Your task to perform on an android device: turn on wifi Image 0: 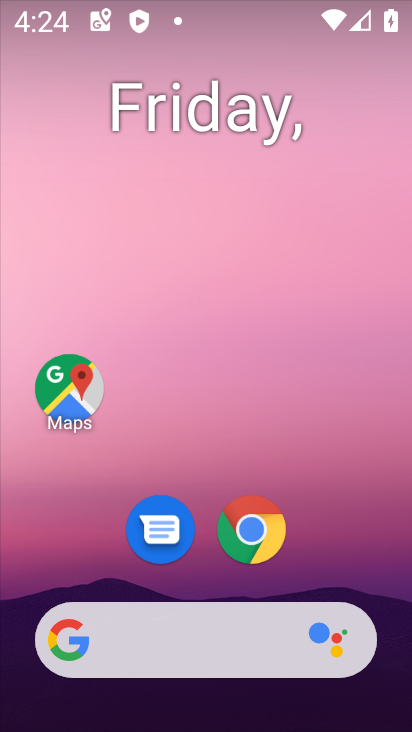
Step 0: drag from (320, 573) to (264, 28)
Your task to perform on an android device: turn on wifi Image 1: 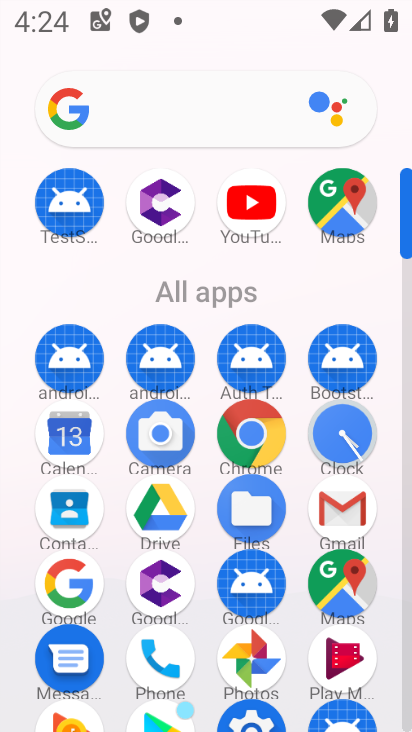
Step 1: click (322, 395)
Your task to perform on an android device: turn on wifi Image 2: 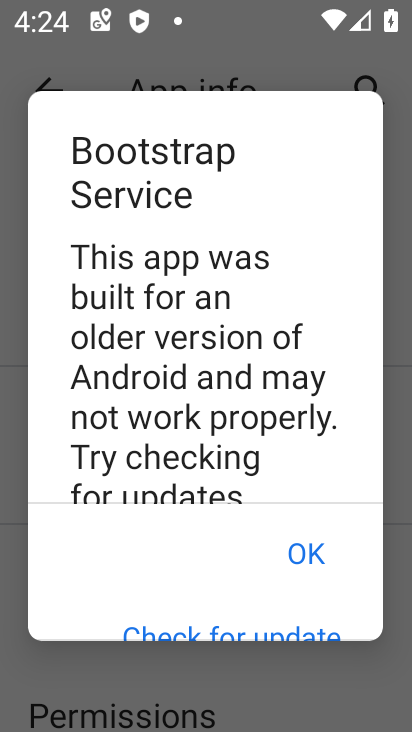
Step 2: click (316, 563)
Your task to perform on an android device: turn on wifi Image 3: 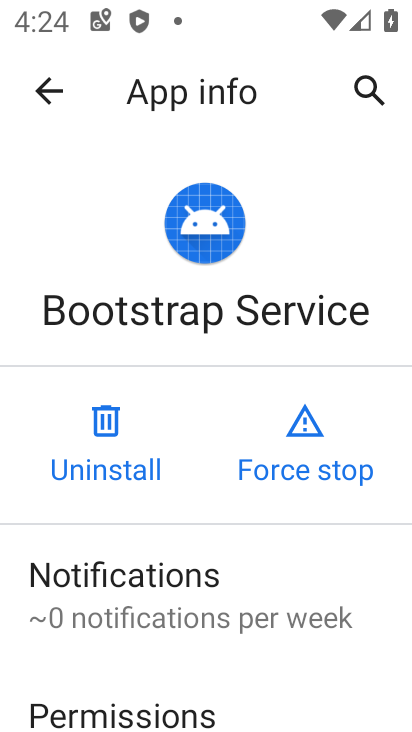
Step 3: click (47, 88)
Your task to perform on an android device: turn on wifi Image 4: 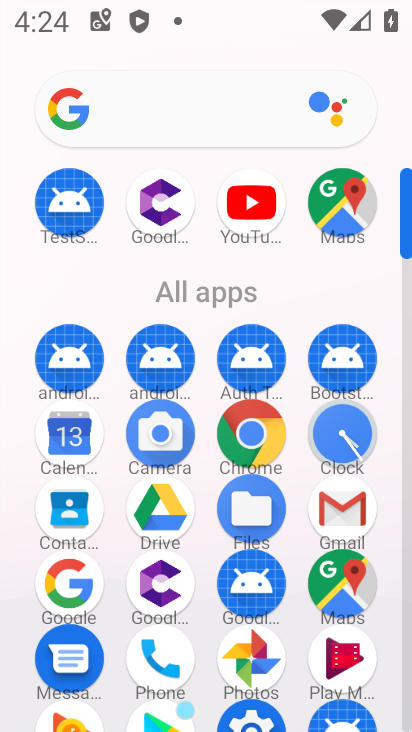
Step 4: drag from (275, 681) to (274, 379)
Your task to perform on an android device: turn on wifi Image 5: 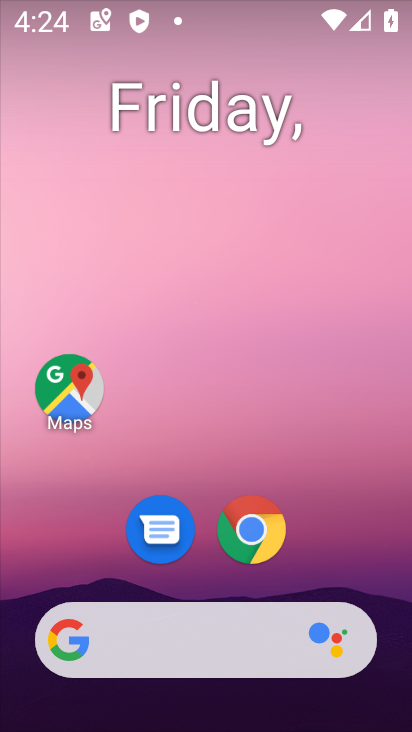
Step 5: drag from (309, 569) to (292, 10)
Your task to perform on an android device: turn on wifi Image 6: 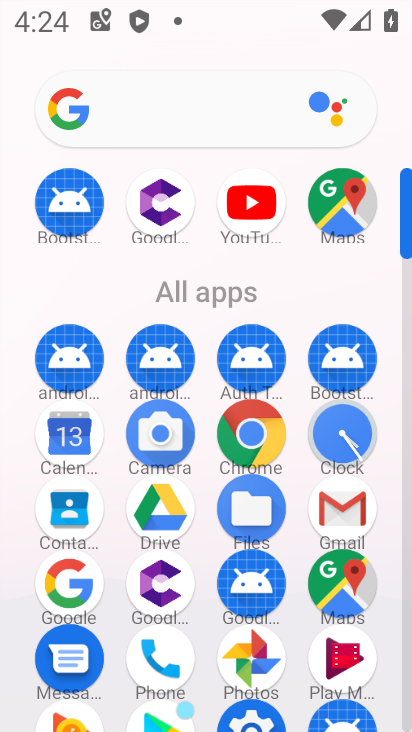
Step 6: drag from (289, 668) to (285, 290)
Your task to perform on an android device: turn on wifi Image 7: 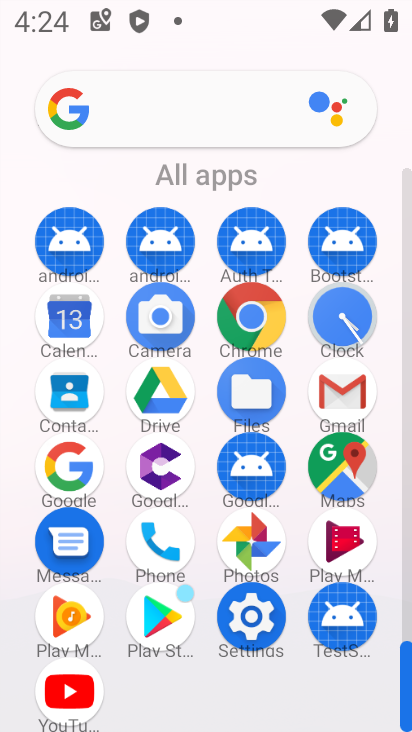
Step 7: click (241, 620)
Your task to perform on an android device: turn on wifi Image 8: 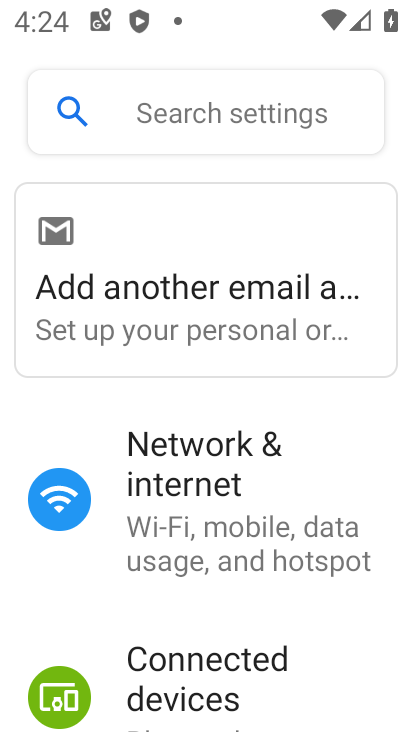
Step 8: click (194, 511)
Your task to perform on an android device: turn on wifi Image 9: 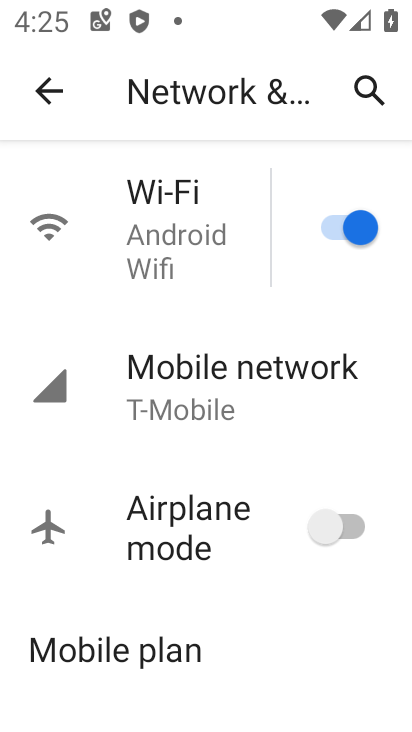
Step 9: task complete